Your task to perform on an android device: turn off smart reply in the gmail app Image 0: 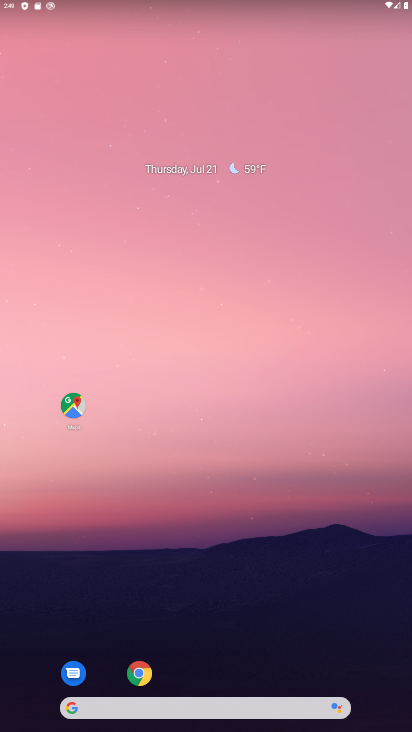
Step 0: drag from (379, 674) to (343, 70)
Your task to perform on an android device: turn off smart reply in the gmail app Image 1: 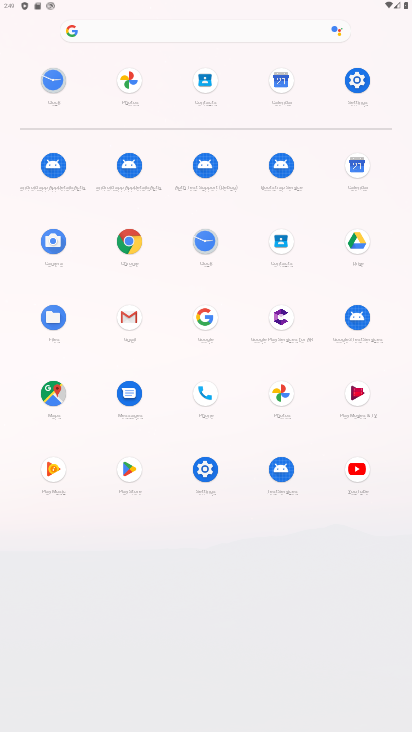
Step 1: click (127, 317)
Your task to perform on an android device: turn off smart reply in the gmail app Image 2: 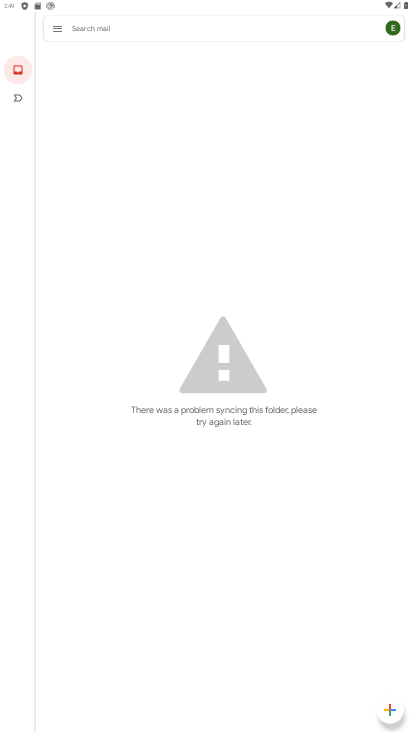
Step 2: click (54, 30)
Your task to perform on an android device: turn off smart reply in the gmail app Image 3: 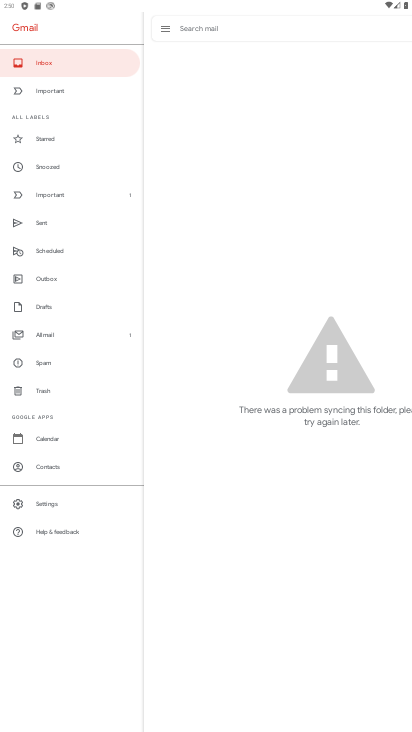
Step 3: click (44, 494)
Your task to perform on an android device: turn off smart reply in the gmail app Image 4: 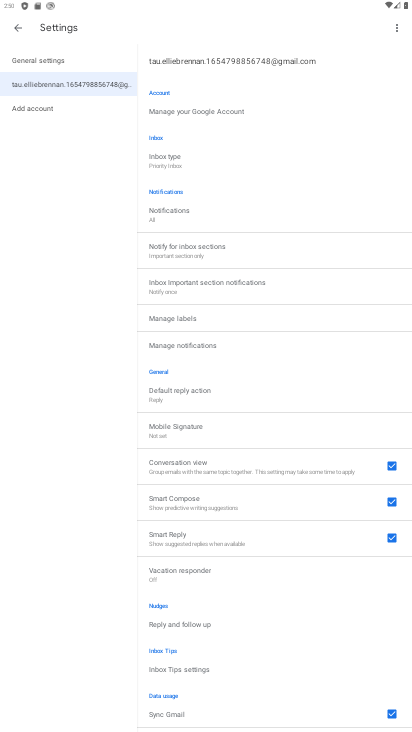
Step 4: click (394, 537)
Your task to perform on an android device: turn off smart reply in the gmail app Image 5: 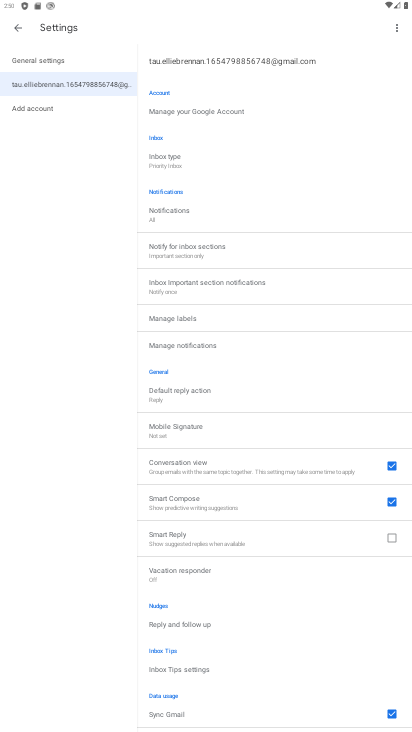
Step 5: task complete